Your task to perform on an android device: Go to notification settings Image 0: 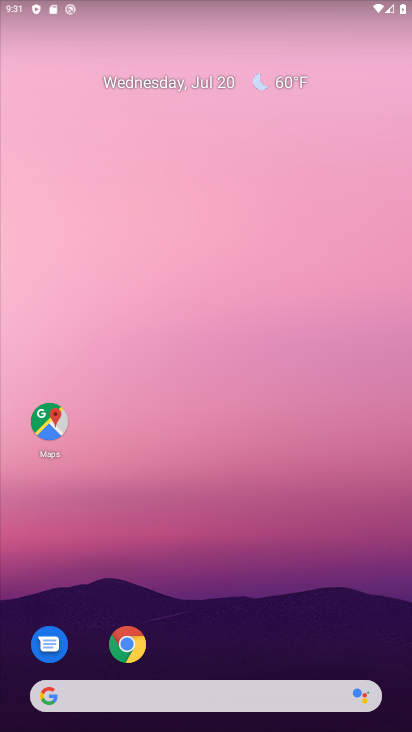
Step 0: drag from (236, 670) to (252, 197)
Your task to perform on an android device: Go to notification settings Image 1: 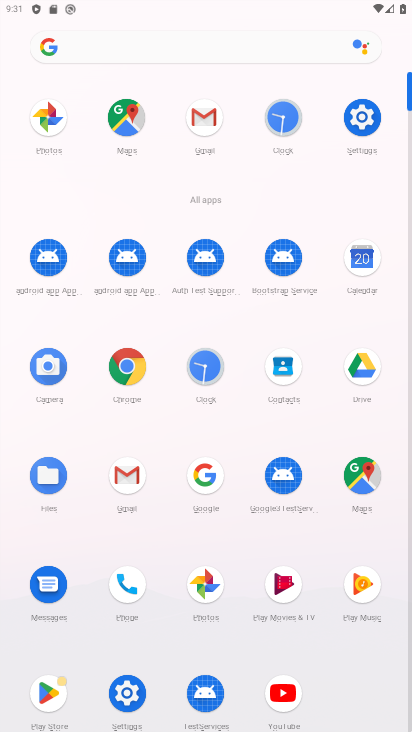
Step 1: click (366, 112)
Your task to perform on an android device: Go to notification settings Image 2: 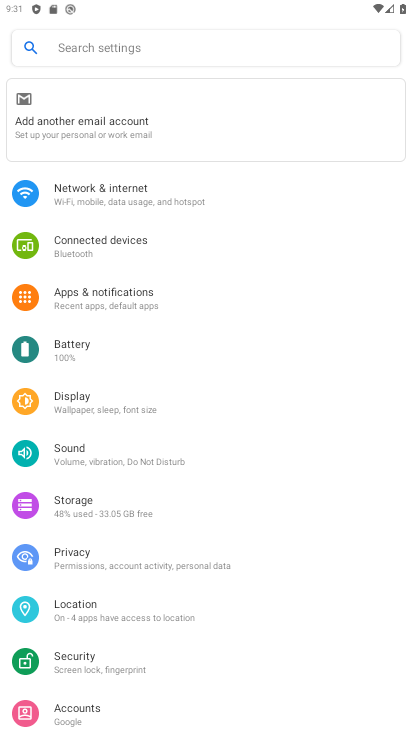
Step 2: click (101, 300)
Your task to perform on an android device: Go to notification settings Image 3: 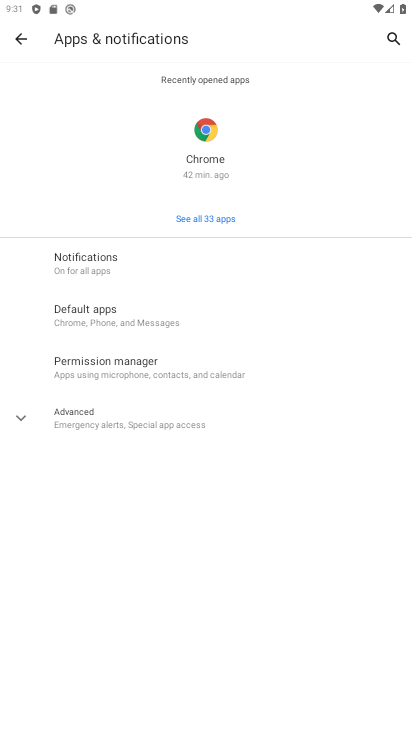
Step 3: click (77, 412)
Your task to perform on an android device: Go to notification settings Image 4: 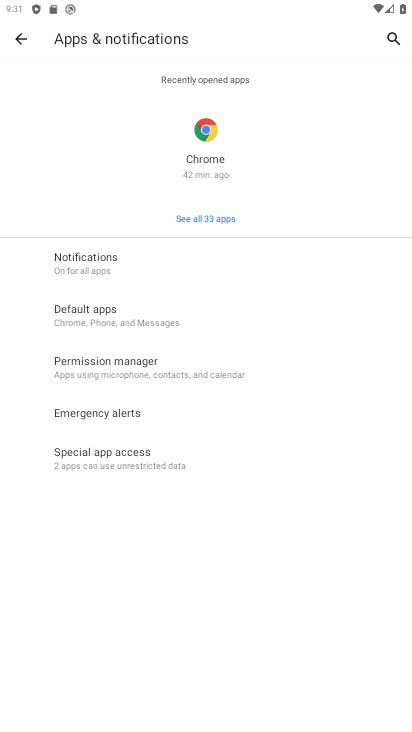
Step 4: task complete